Your task to perform on an android device: Clear all items from cart on target. Image 0: 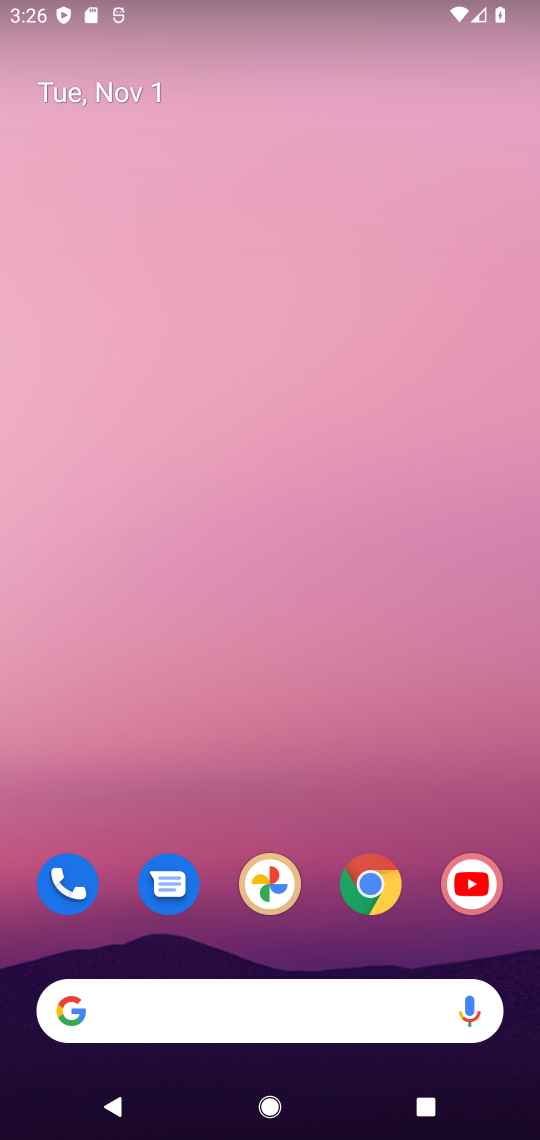
Step 0: click (358, 879)
Your task to perform on an android device: Clear all items from cart on target. Image 1: 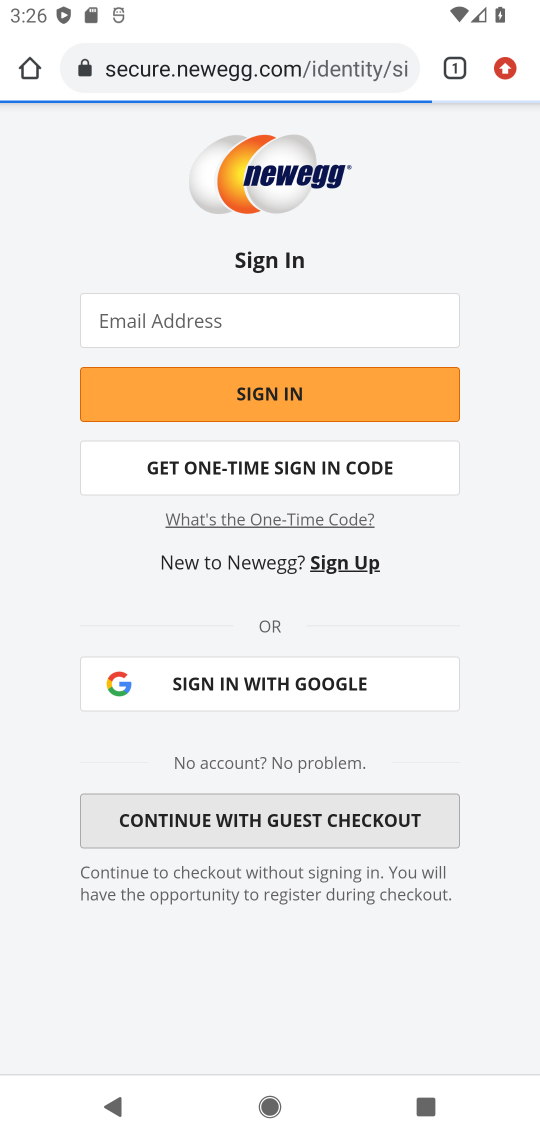
Step 1: click (339, 68)
Your task to perform on an android device: Clear all items from cart on target. Image 2: 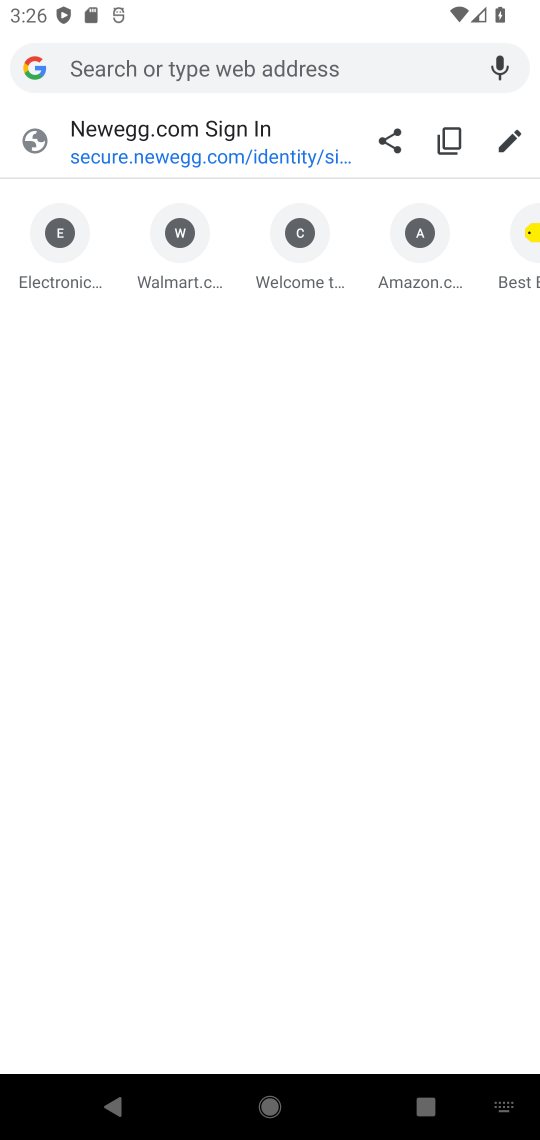
Step 2: type "target"
Your task to perform on an android device: Clear all items from cart on target. Image 3: 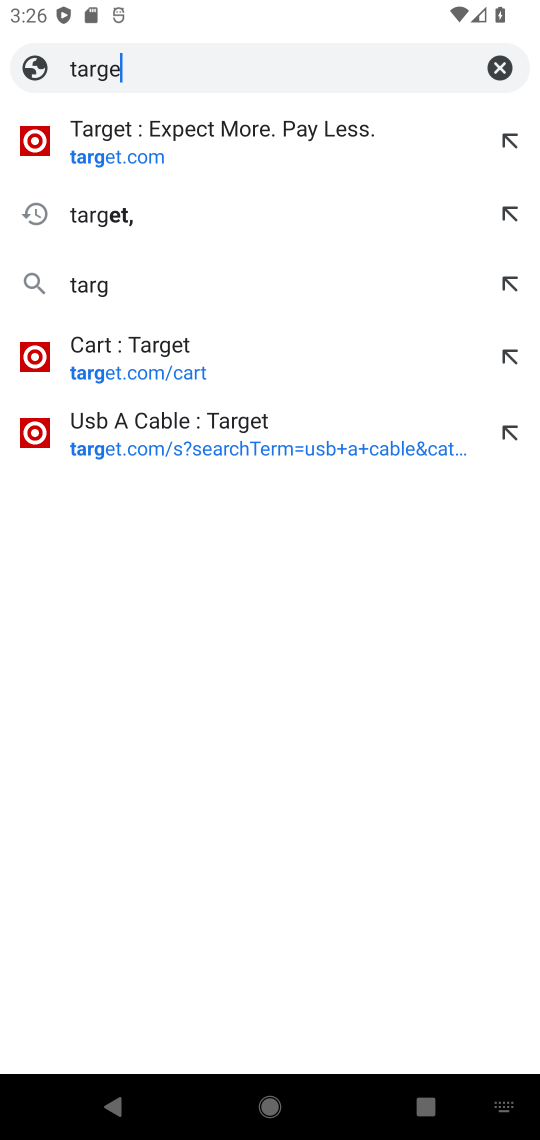
Step 3: press enter
Your task to perform on an android device: Clear all items from cart on target. Image 4: 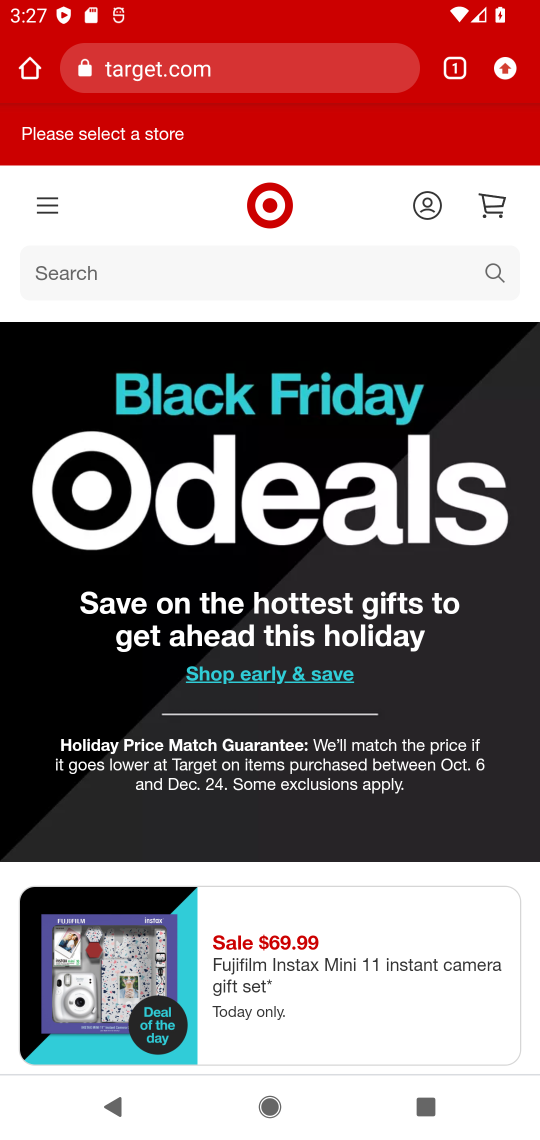
Step 4: click (483, 265)
Your task to perform on an android device: Clear all items from cart on target. Image 5: 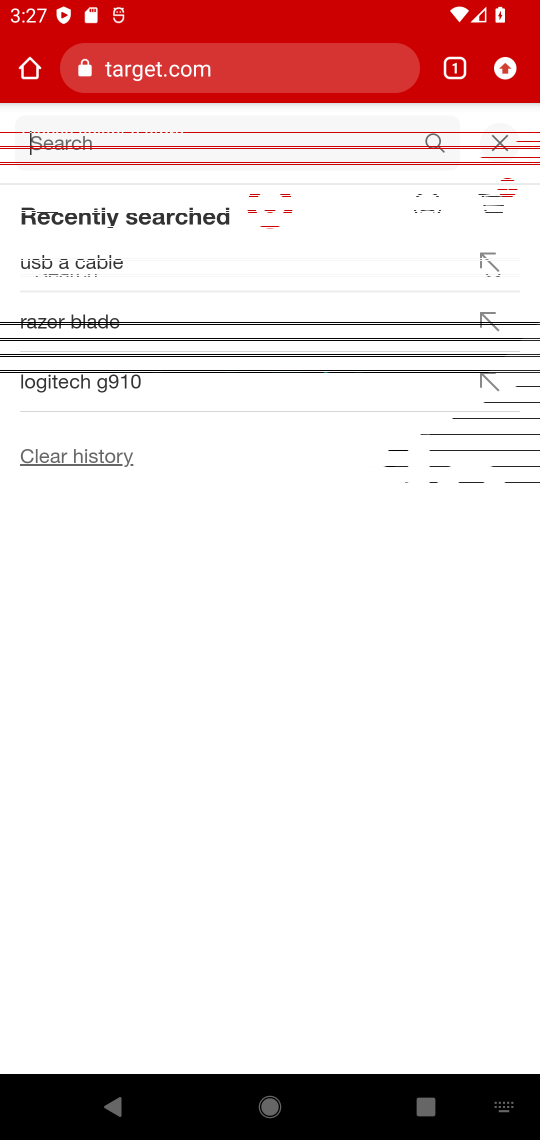
Step 5: click (507, 140)
Your task to perform on an android device: Clear all items from cart on target. Image 6: 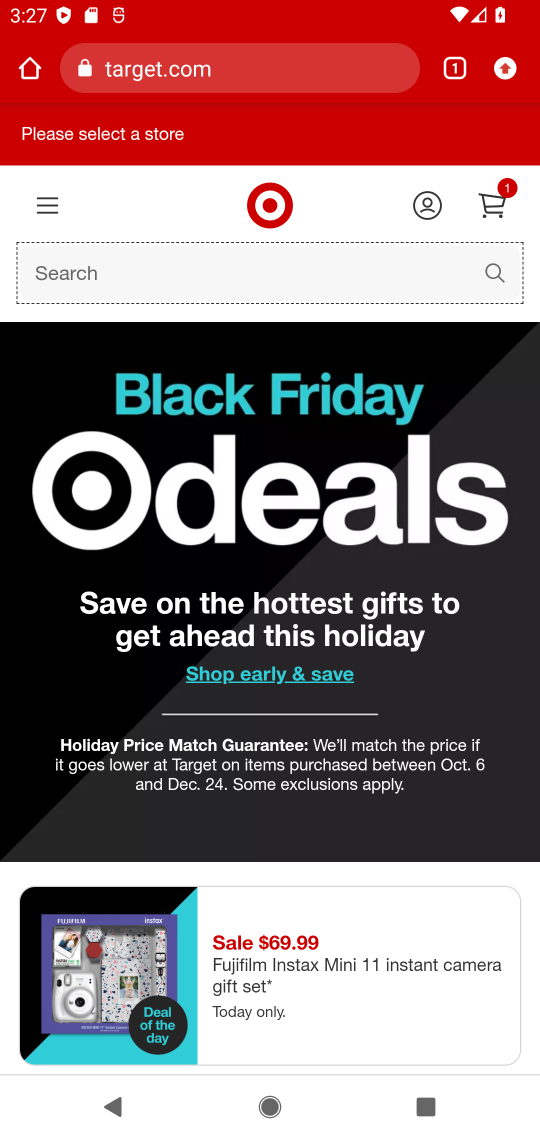
Step 6: click (504, 200)
Your task to perform on an android device: Clear all items from cart on target. Image 7: 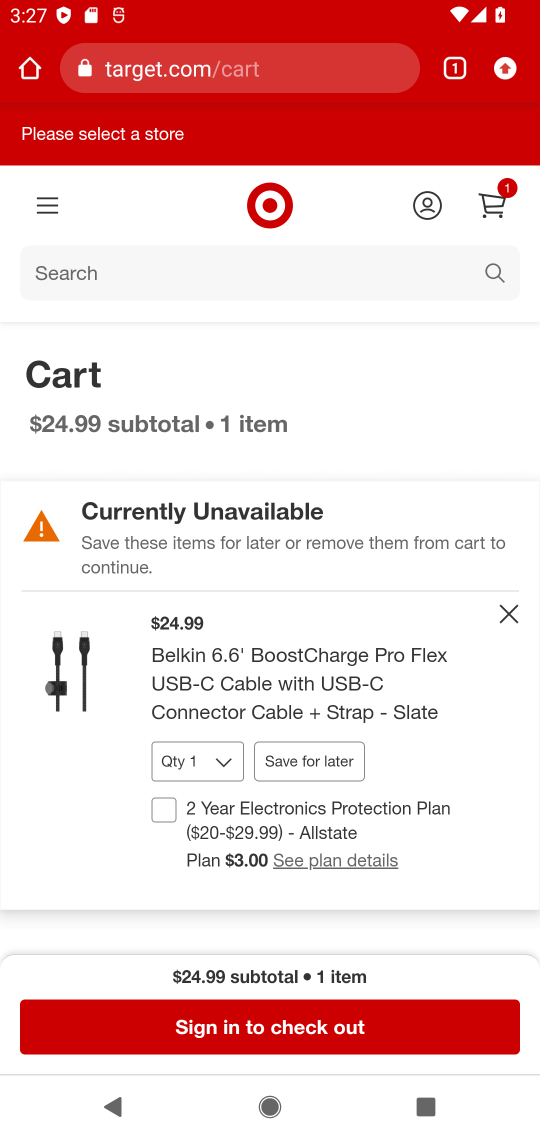
Step 7: click (505, 606)
Your task to perform on an android device: Clear all items from cart on target. Image 8: 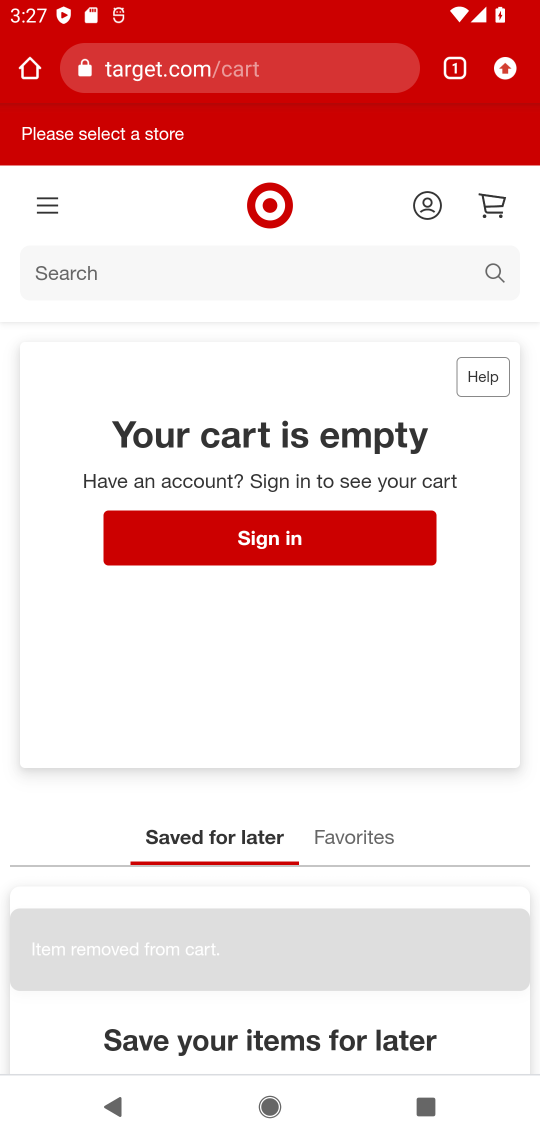
Step 8: task complete